Your task to perform on an android device: Go to CNN.com Image 0: 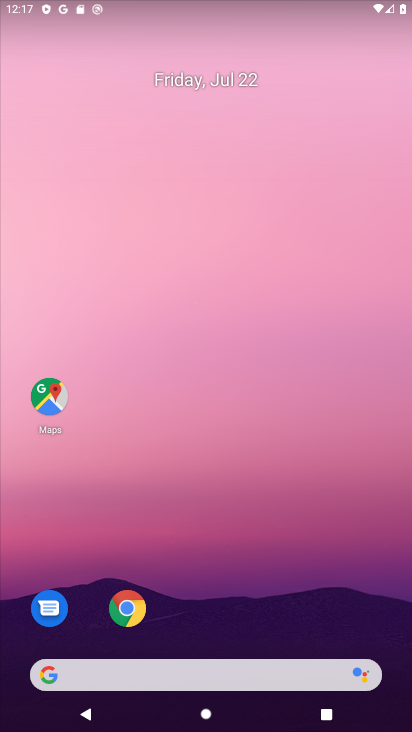
Step 0: click (122, 608)
Your task to perform on an android device: Go to CNN.com Image 1: 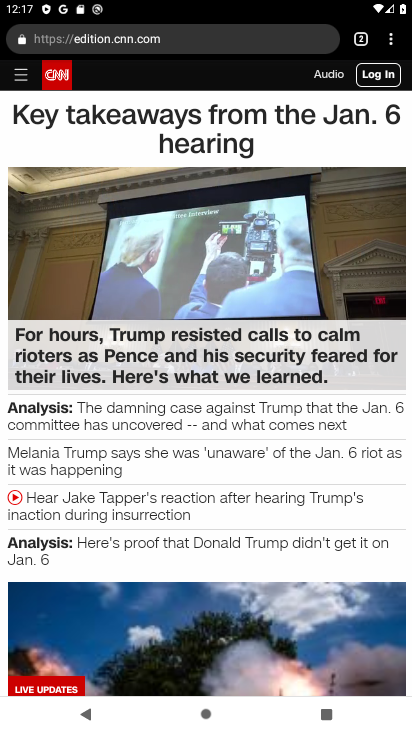
Step 1: task complete